Your task to perform on an android device: Open the Play Movies app and select the watchlist tab. Image 0: 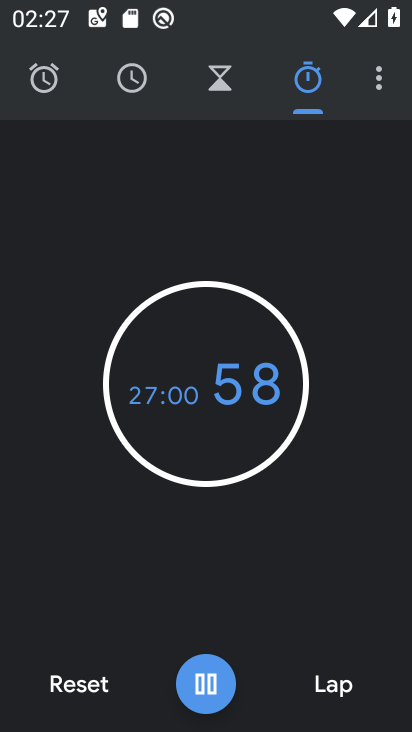
Step 0: click (212, 690)
Your task to perform on an android device: Open the Play Movies app and select the watchlist tab. Image 1: 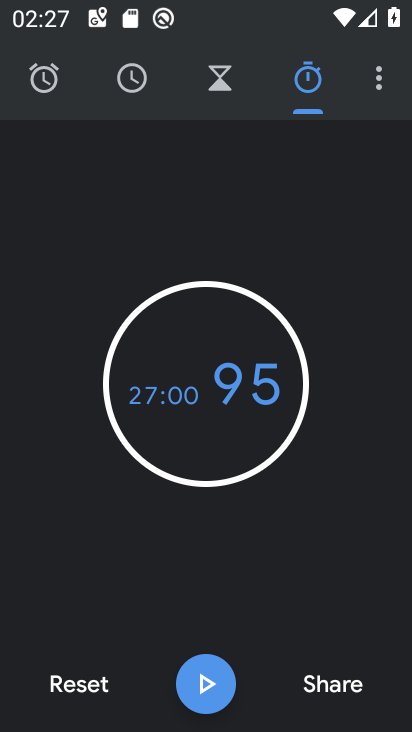
Step 1: drag from (369, 78) to (350, 178)
Your task to perform on an android device: Open the Play Movies app and select the watchlist tab. Image 2: 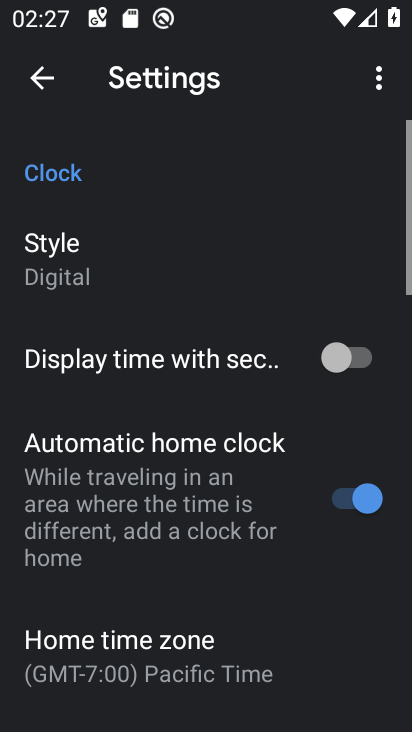
Step 2: press home button
Your task to perform on an android device: Open the Play Movies app and select the watchlist tab. Image 3: 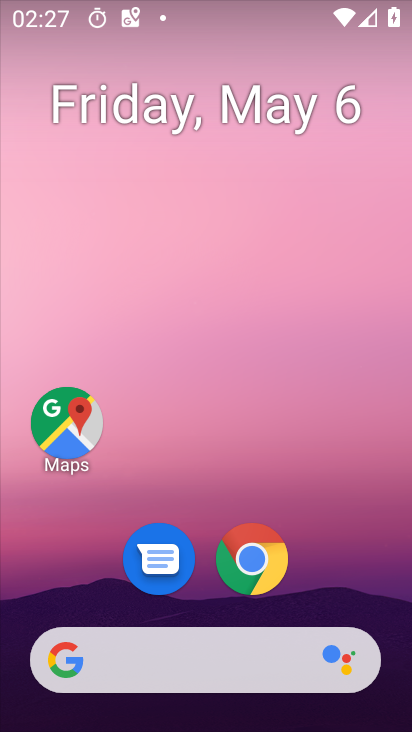
Step 3: drag from (275, 646) to (288, 20)
Your task to perform on an android device: Open the Play Movies app and select the watchlist tab. Image 4: 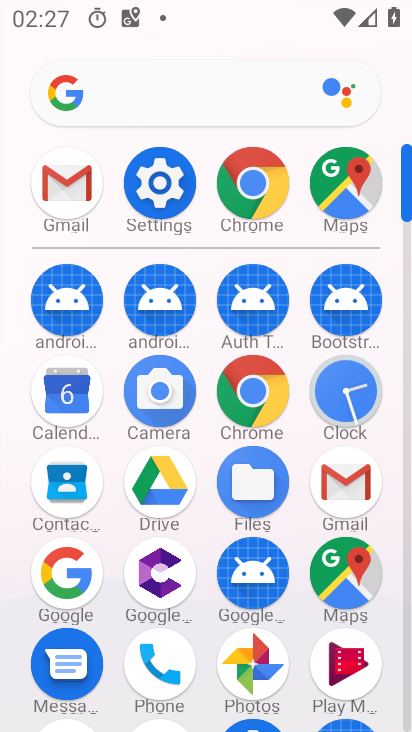
Step 4: drag from (334, 663) to (320, 313)
Your task to perform on an android device: Open the Play Movies app and select the watchlist tab. Image 5: 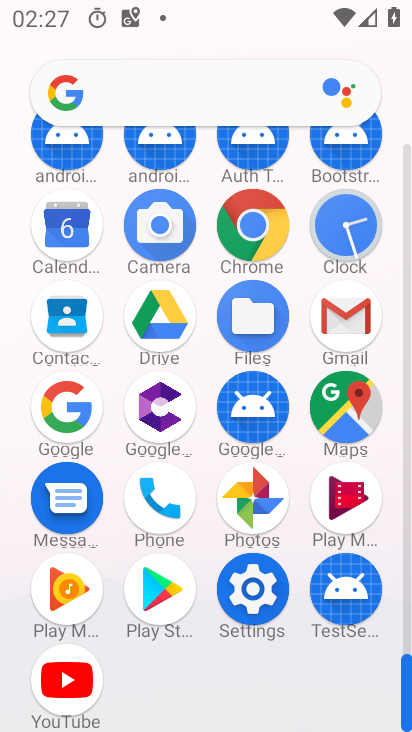
Step 5: click (356, 499)
Your task to perform on an android device: Open the Play Movies app and select the watchlist tab. Image 6: 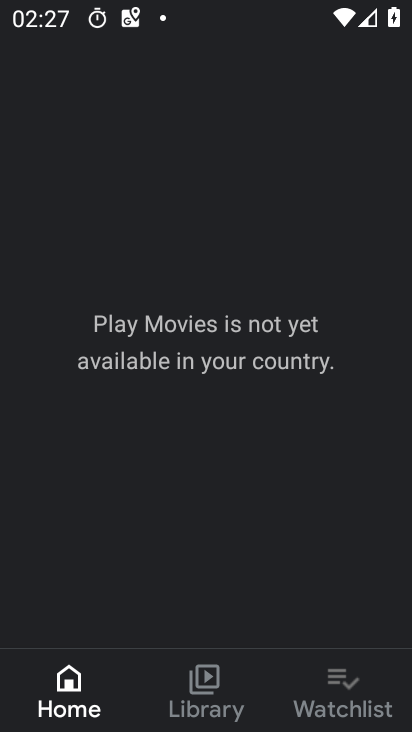
Step 6: click (343, 696)
Your task to perform on an android device: Open the Play Movies app and select the watchlist tab. Image 7: 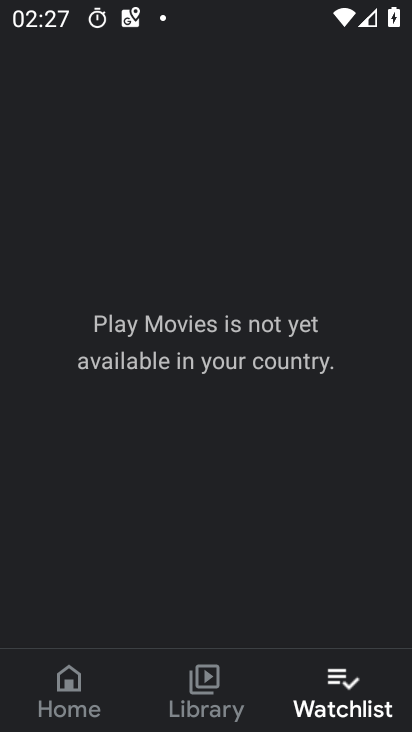
Step 7: task complete